Your task to perform on an android device: open app "Messenger Lite" Image 0: 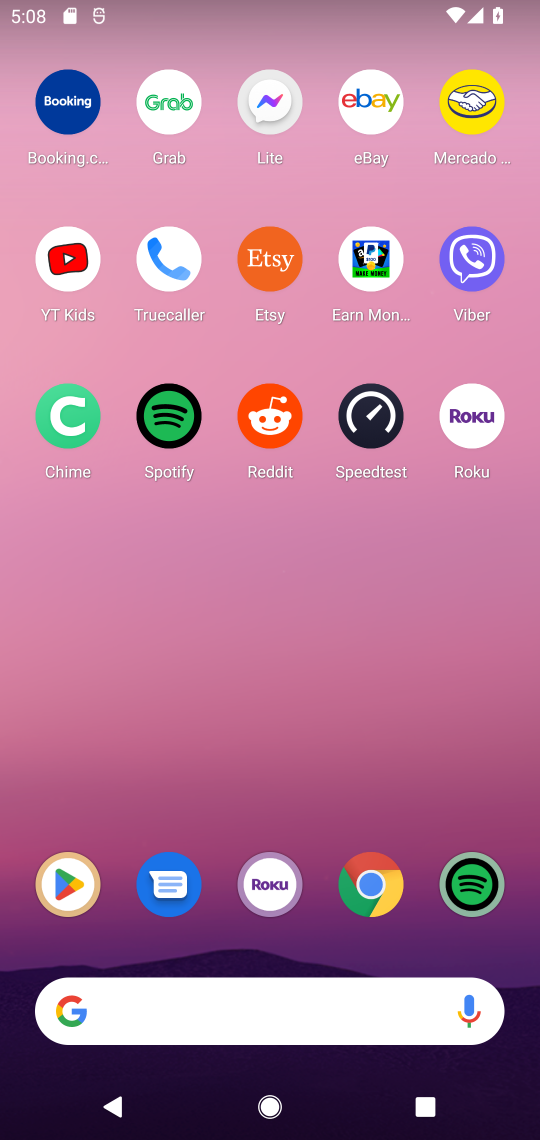
Step 0: drag from (297, 805) to (319, 59)
Your task to perform on an android device: open app "Messenger Lite" Image 1: 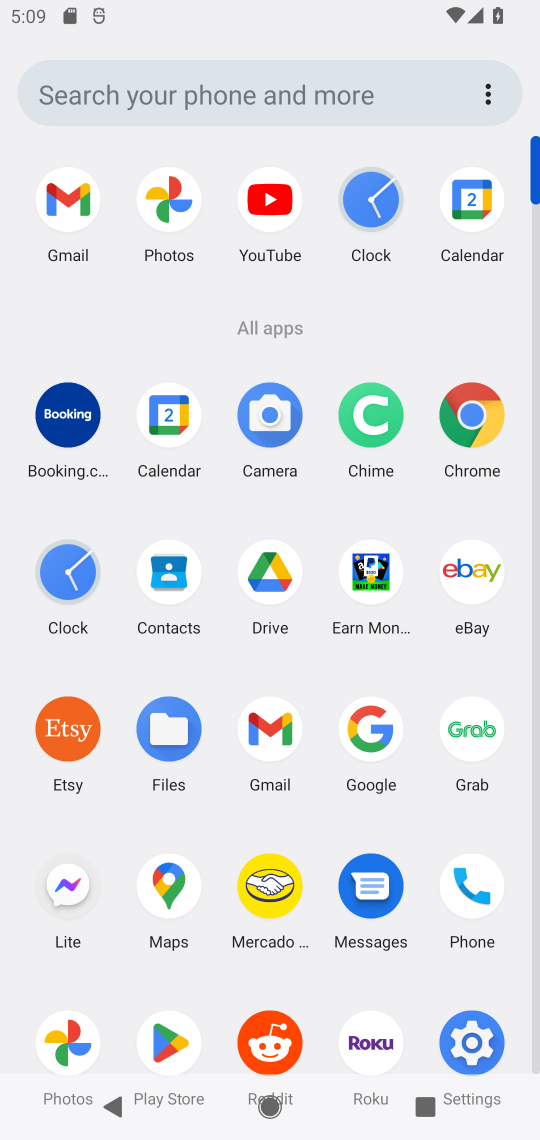
Step 1: click (154, 1047)
Your task to perform on an android device: open app "Messenger Lite" Image 2: 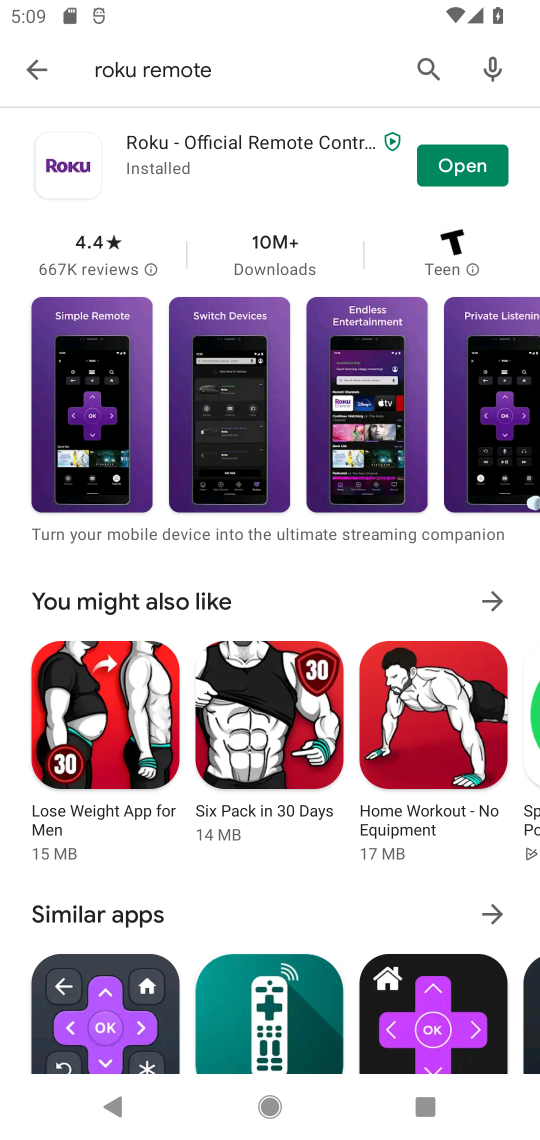
Step 2: click (29, 61)
Your task to perform on an android device: open app "Messenger Lite" Image 3: 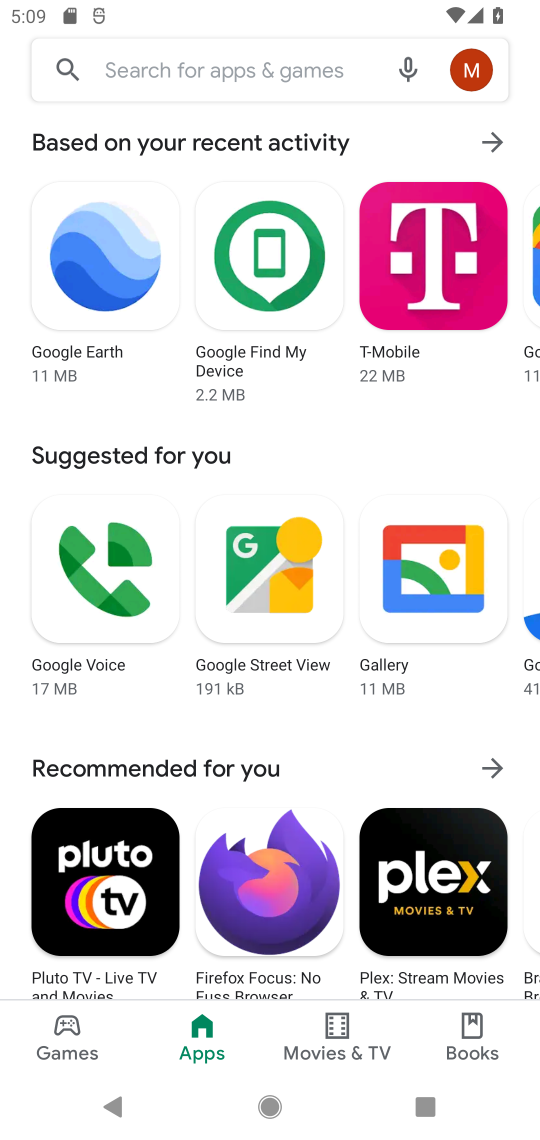
Step 3: click (238, 73)
Your task to perform on an android device: open app "Messenger Lite" Image 4: 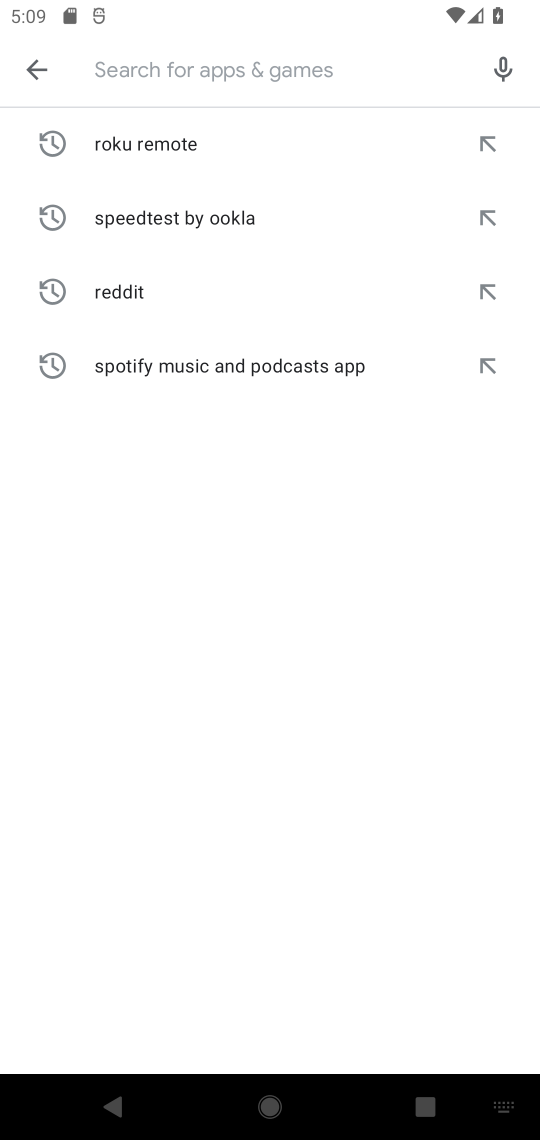
Step 4: type ""Messenger Lite""
Your task to perform on an android device: open app "Messenger Lite" Image 5: 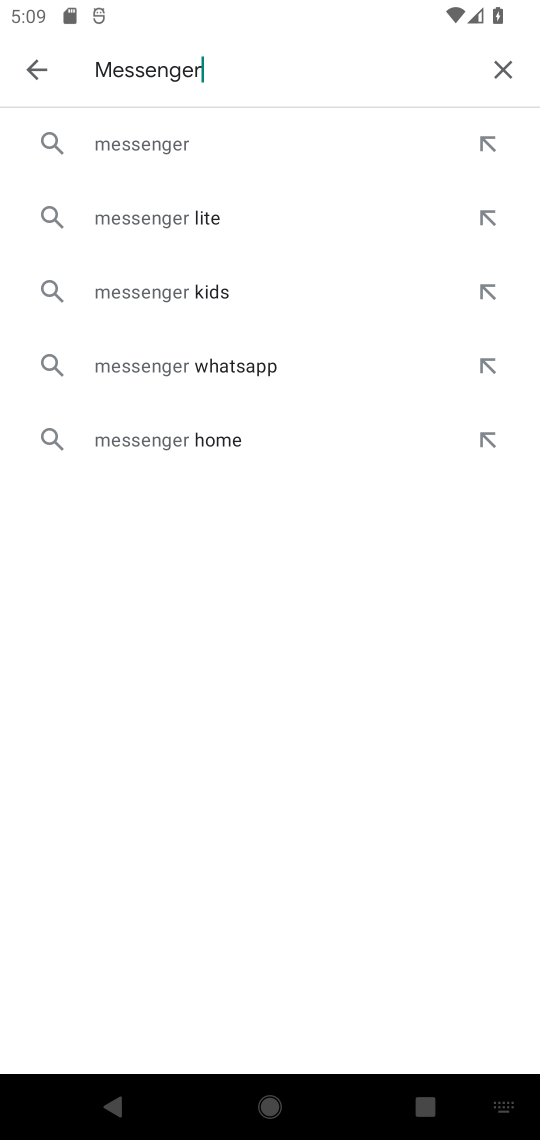
Step 5: click (146, 212)
Your task to perform on an android device: open app "Messenger Lite" Image 6: 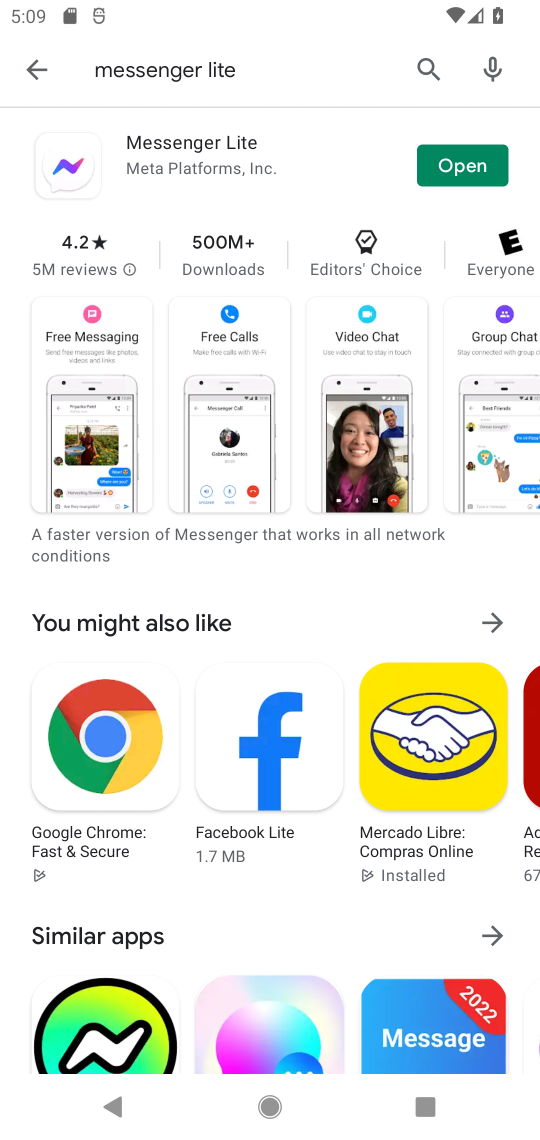
Step 6: click (492, 163)
Your task to perform on an android device: open app "Messenger Lite" Image 7: 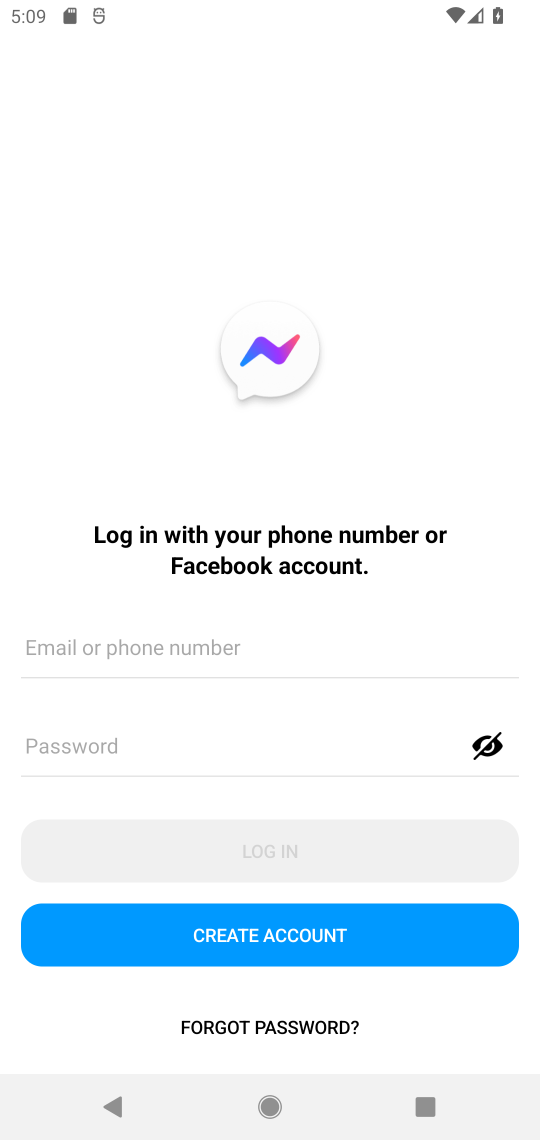
Step 7: task complete